Your task to perform on an android device: Open maps Image 0: 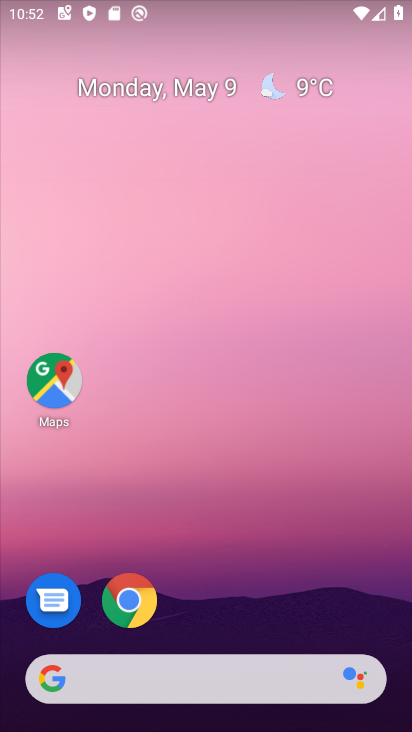
Step 0: drag from (361, 600) to (332, 203)
Your task to perform on an android device: Open maps Image 1: 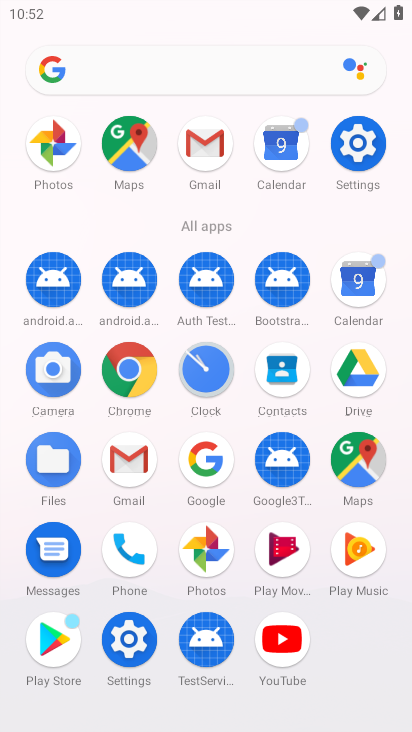
Step 1: click (117, 140)
Your task to perform on an android device: Open maps Image 2: 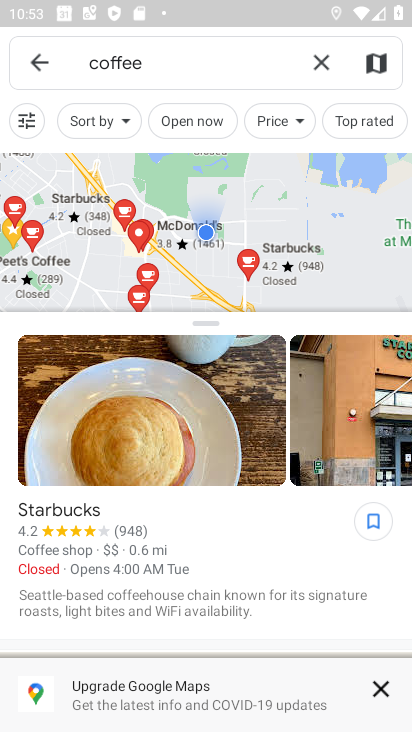
Step 2: task complete